Your task to perform on an android device: toggle translation in the chrome app Image 0: 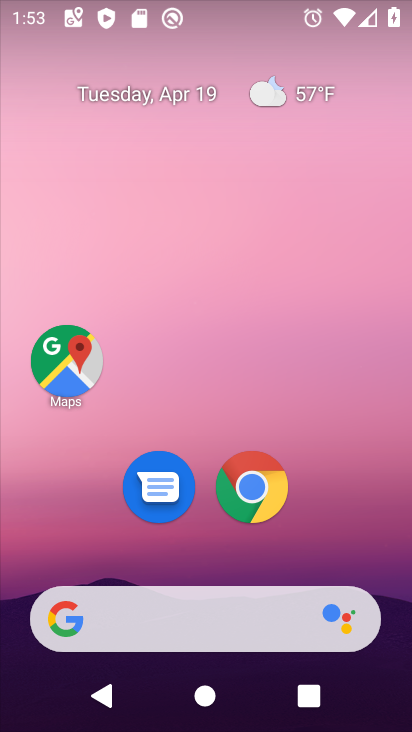
Step 0: drag from (364, 551) to (348, 150)
Your task to perform on an android device: toggle translation in the chrome app Image 1: 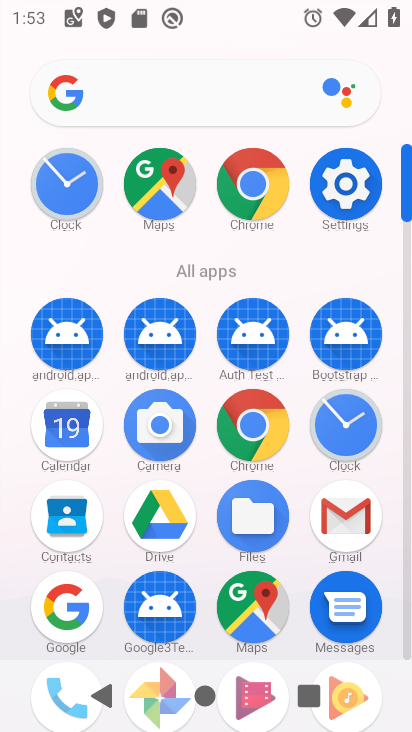
Step 1: click (256, 432)
Your task to perform on an android device: toggle translation in the chrome app Image 2: 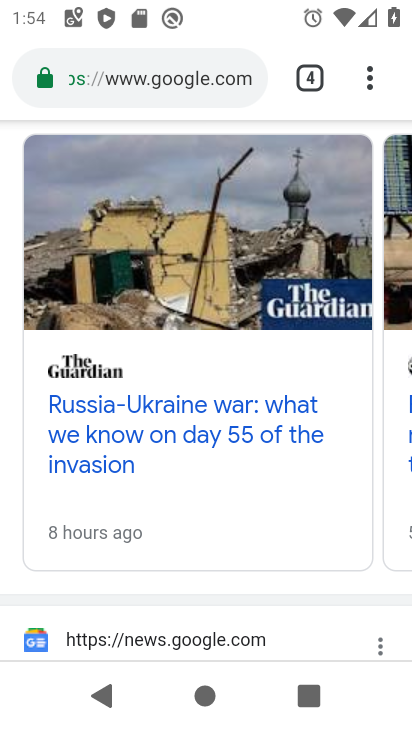
Step 2: click (366, 73)
Your task to perform on an android device: toggle translation in the chrome app Image 3: 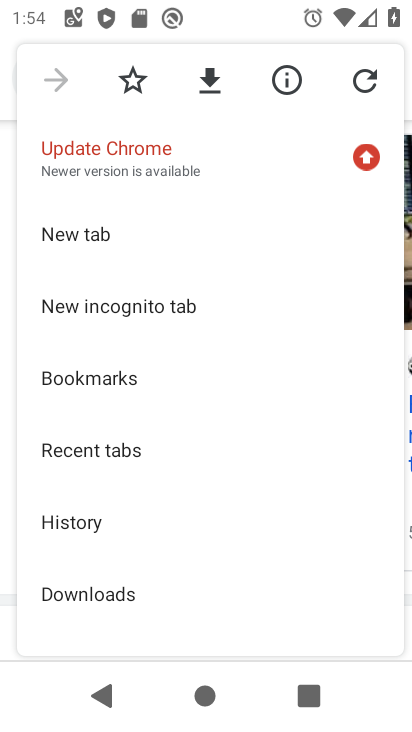
Step 3: drag from (225, 389) to (240, 156)
Your task to perform on an android device: toggle translation in the chrome app Image 4: 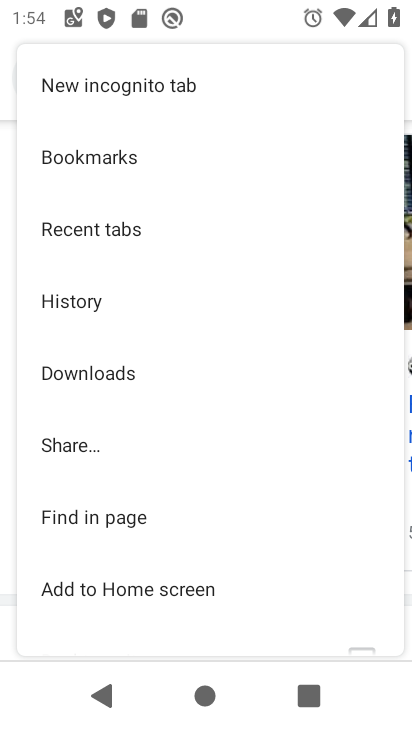
Step 4: drag from (165, 489) to (218, 181)
Your task to perform on an android device: toggle translation in the chrome app Image 5: 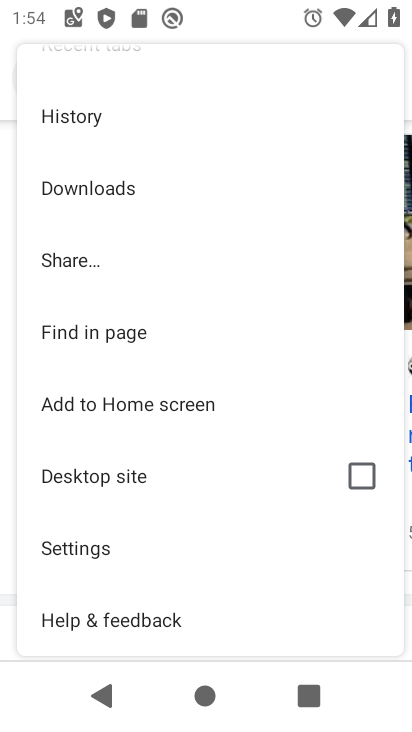
Step 5: click (62, 546)
Your task to perform on an android device: toggle translation in the chrome app Image 6: 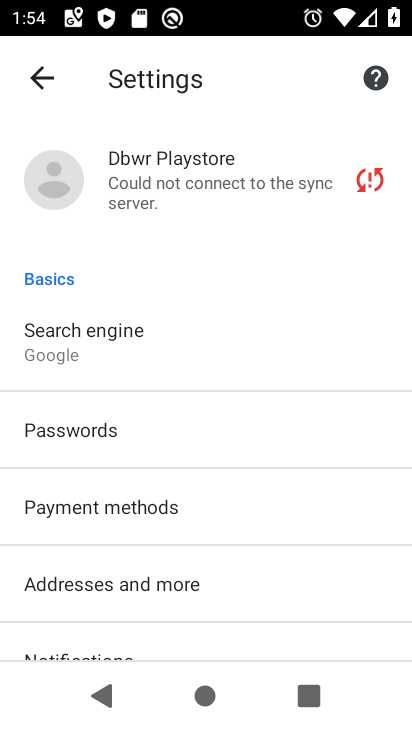
Step 6: drag from (276, 618) to (309, 277)
Your task to perform on an android device: toggle translation in the chrome app Image 7: 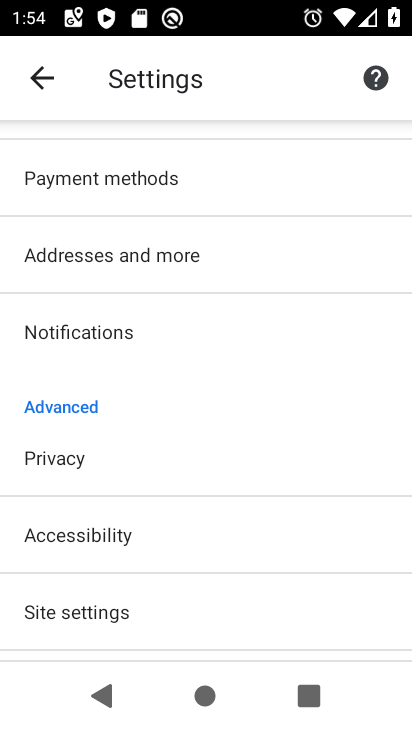
Step 7: drag from (246, 646) to (273, 423)
Your task to perform on an android device: toggle translation in the chrome app Image 8: 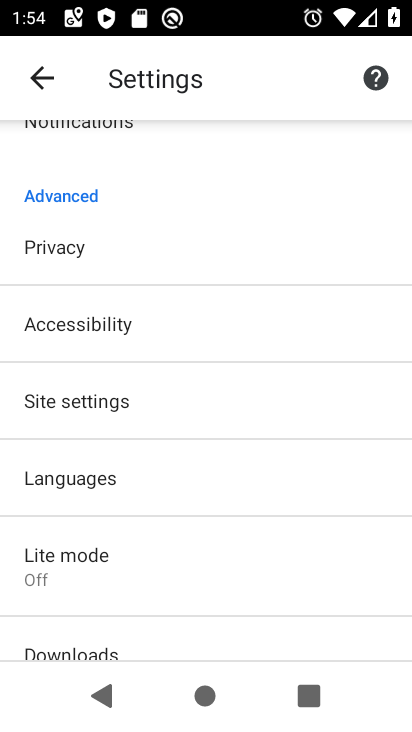
Step 8: click (110, 479)
Your task to perform on an android device: toggle translation in the chrome app Image 9: 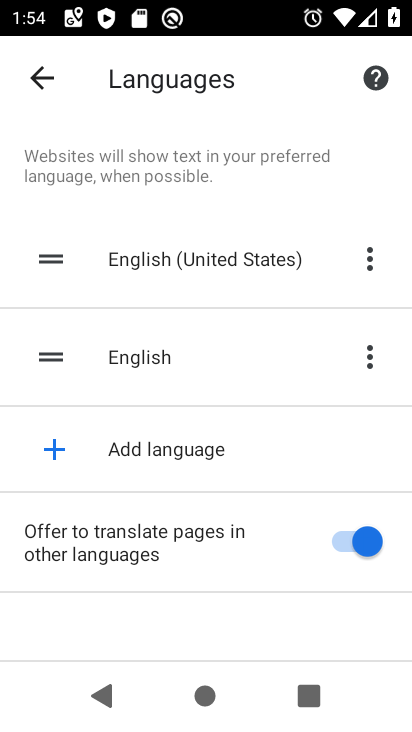
Step 9: click (353, 541)
Your task to perform on an android device: toggle translation in the chrome app Image 10: 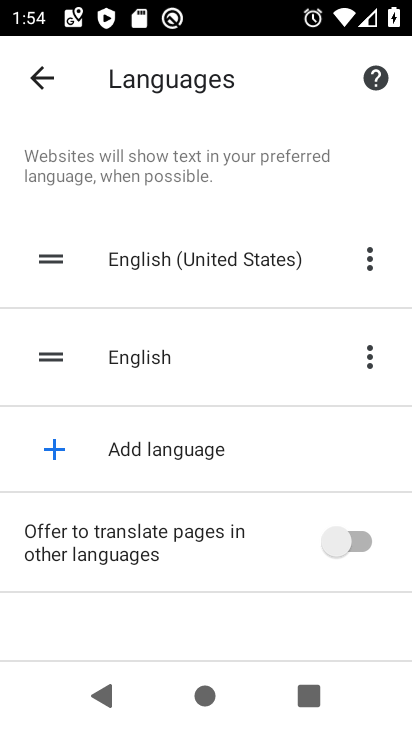
Step 10: task complete